Your task to perform on an android device: Open the Play Movies app and select the watchlist tab. Image 0: 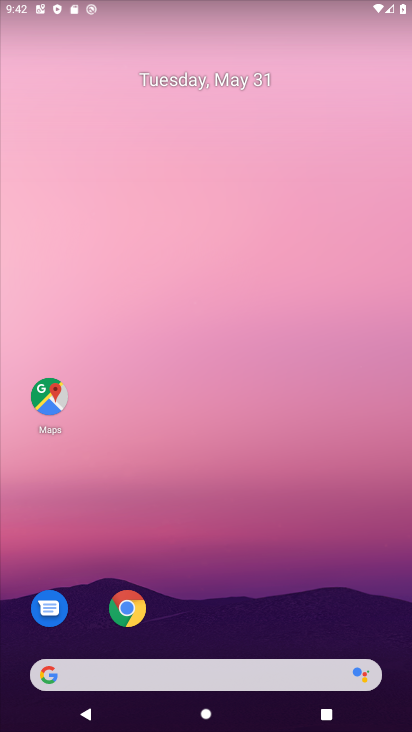
Step 0: task complete